Your task to perform on an android device: turn on airplane mode Image 0: 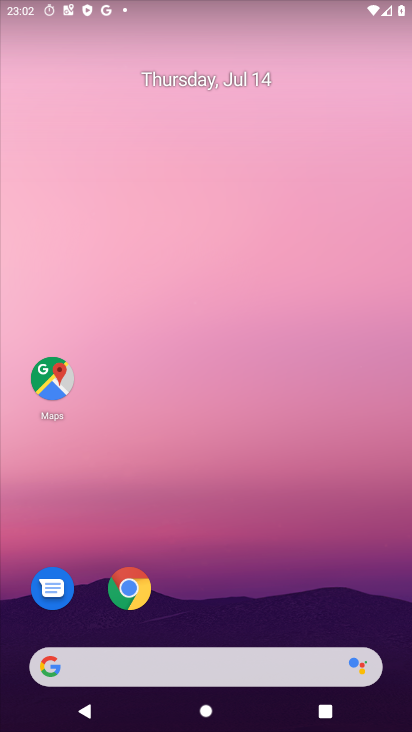
Step 0: drag from (214, 597) to (234, 60)
Your task to perform on an android device: turn on airplane mode Image 1: 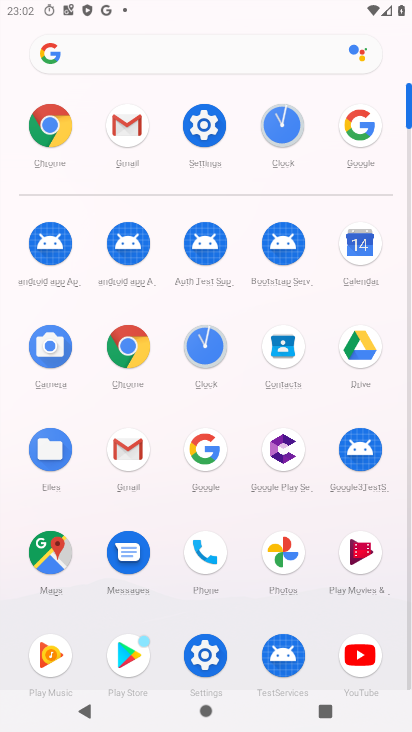
Step 1: click (207, 123)
Your task to perform on an android device: turn on airplane mode Image 2: 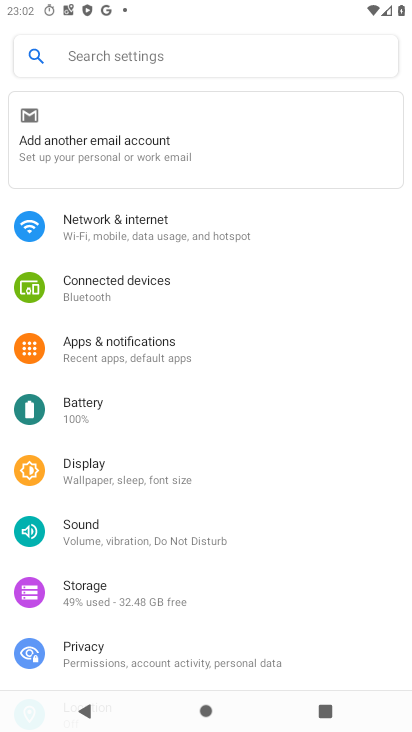
Step 2: click (152, 224)
Your task to perform on an android device: turn on airplane mode Image 3: 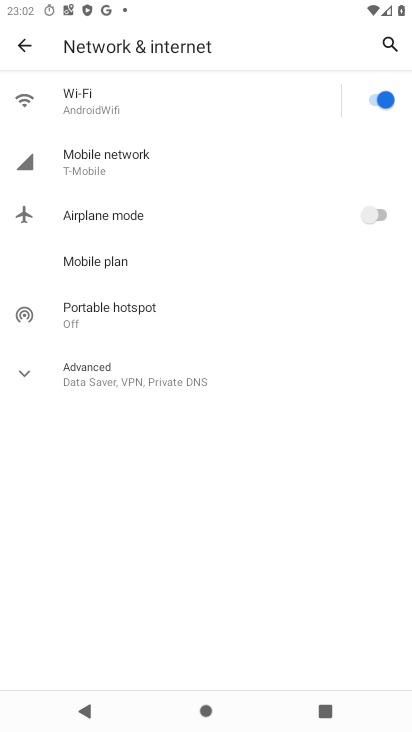
Step 3: click (379, 213)
Your task to perform on an android device: turn on airplane mode Image 4: 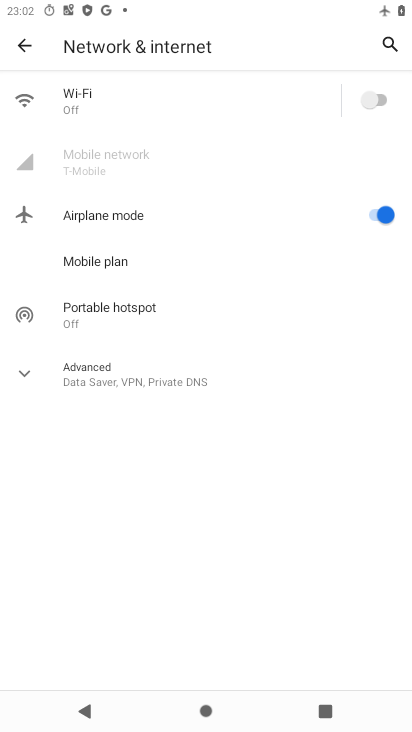
Step 4: task complete